Your task to perform on an android device: Show me the alarms in the clock app Image 0: 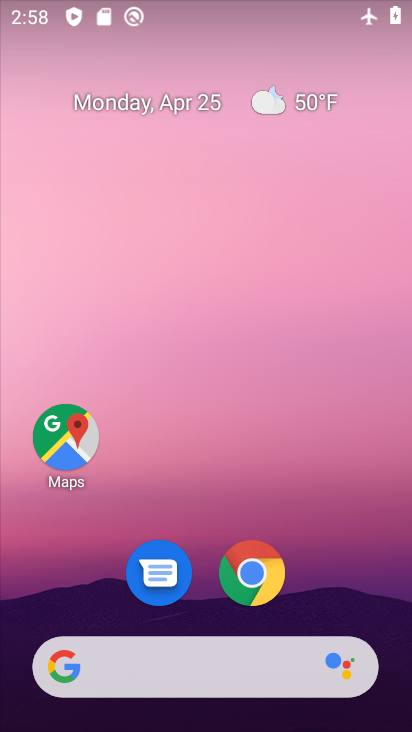
Step 0: drag from (358, 563) to (308, 122)
Your task to perform on an android device: Show me the alarms in the clock app Image 1: 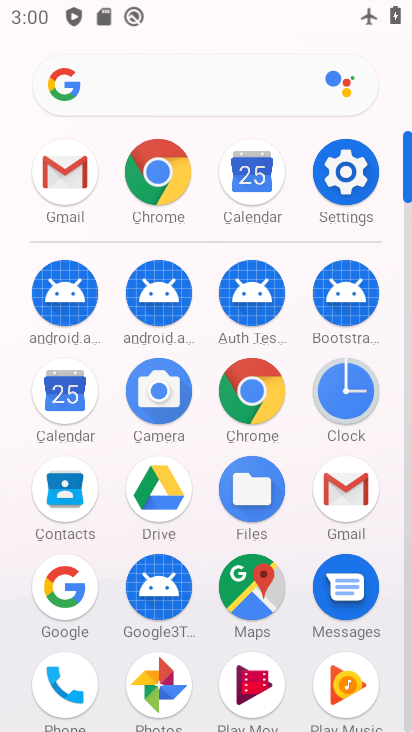
Step 1: click (343, 405)
Your task to perform on an android device: Show me the alarms in the clock app Image 2: 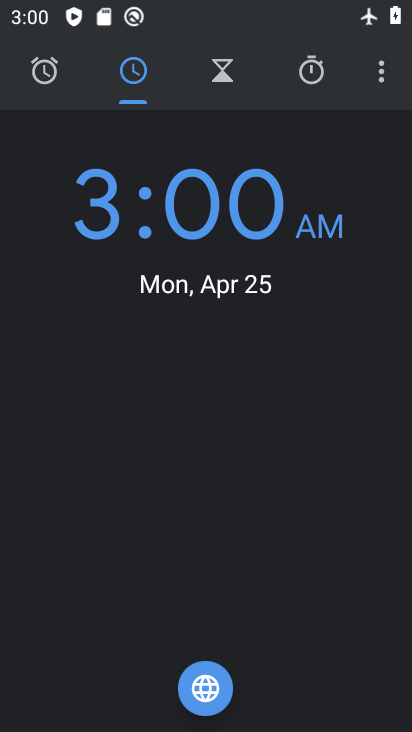
Step 2: click (377, 78)
Your task to perform on an android device: Show me the alarms in the clock app Image 3: 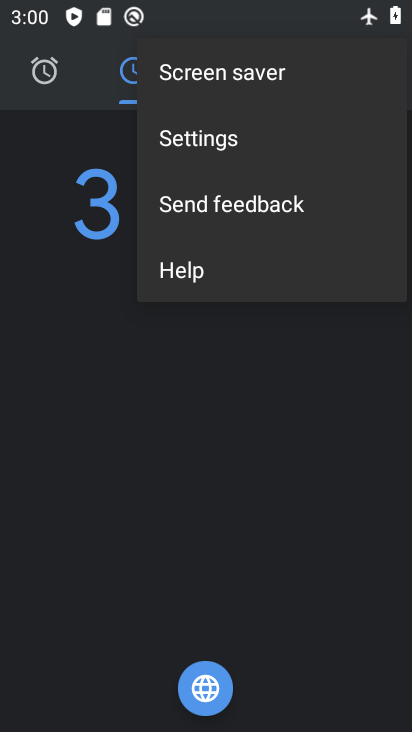
Step 3: click (222, 147)
Your task to perform on an android device: Show me the alarms in the clock app Image 4: 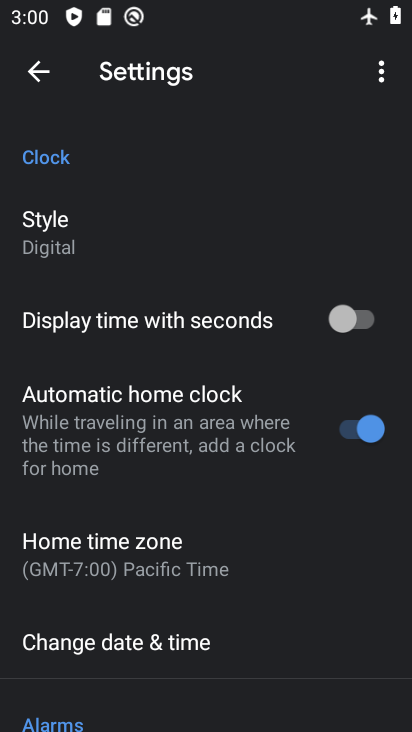
Step 4: click (246, 216)
Your task to perform on an android device: Show me the alarms in the clock app Image 5: 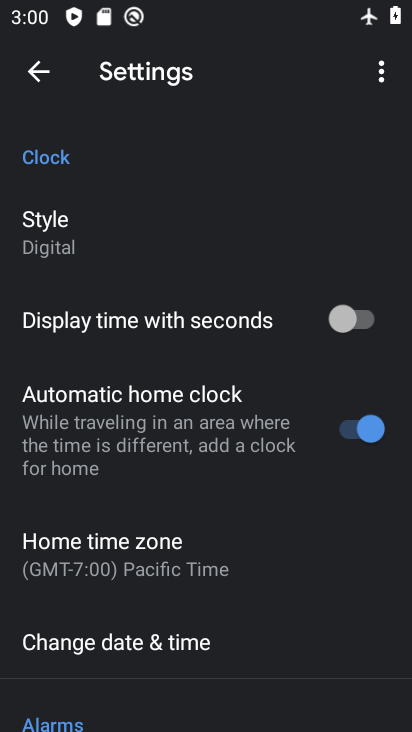
Step 5: drag from (231, 553) to (185, 154)
Your task to perform on an android device: Show me the alarms in the clock app Image 6: 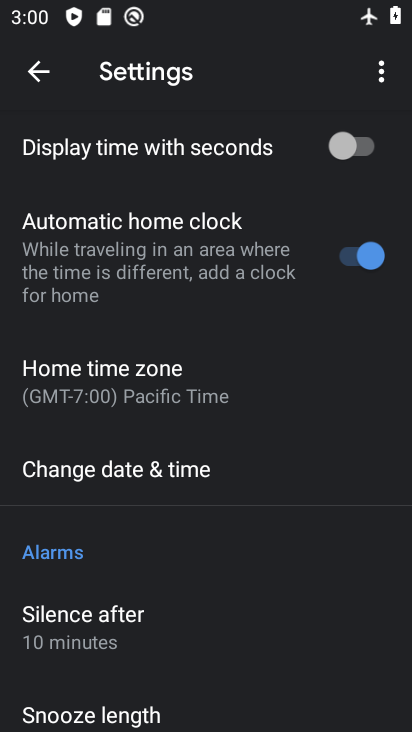
Step 6: drag from (117, 330) to (194, 588)
Your task to perform on an android device: Show me the alarms in the clock app Image 7: 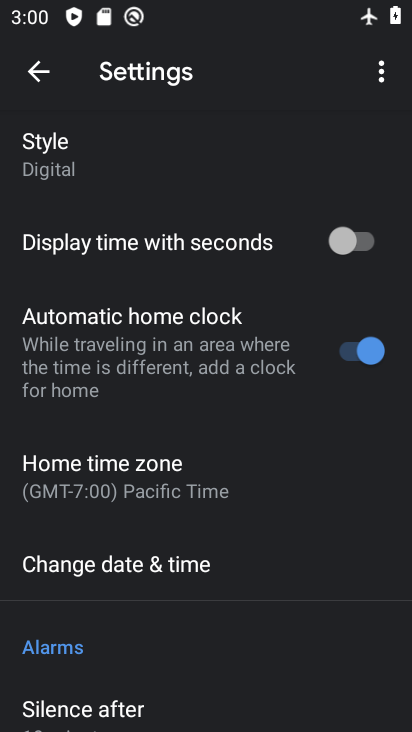
Step 7: drag from (144, 315) to (188, 707)
Your task to perform on an android device: Show me the alarms in the clock app Image 8: 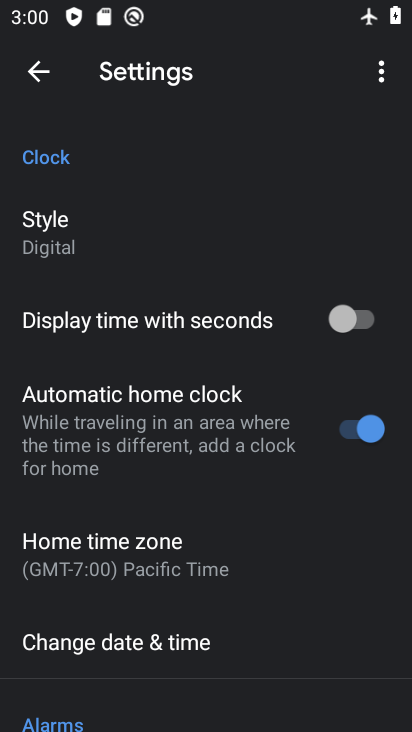
Step 8: drag from (107, 401) to (150, 665)
Your task to perform on an android device: Show me the alarms in the clock app Image 9: 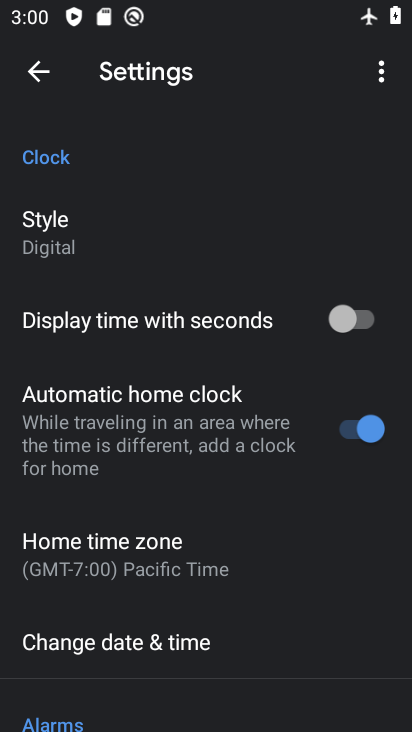
Step 9: click (66, 220)
Your task to perform on an android device: Show me the alarms in the clock app Image 10: 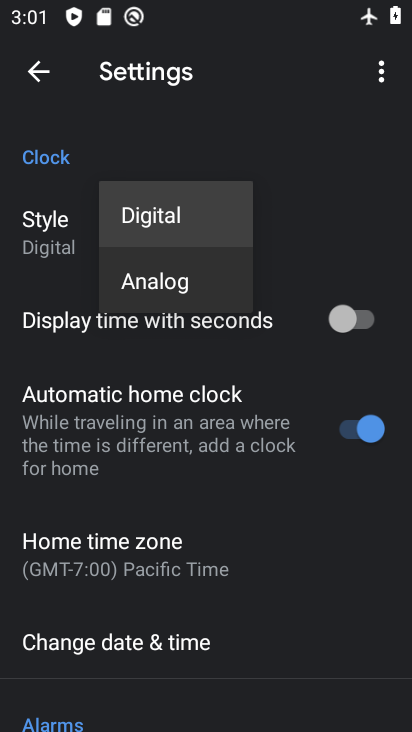
Step 10: click (126, 285)
Your task to perform on an android device: Show me the alarms in the clock app Image 11: 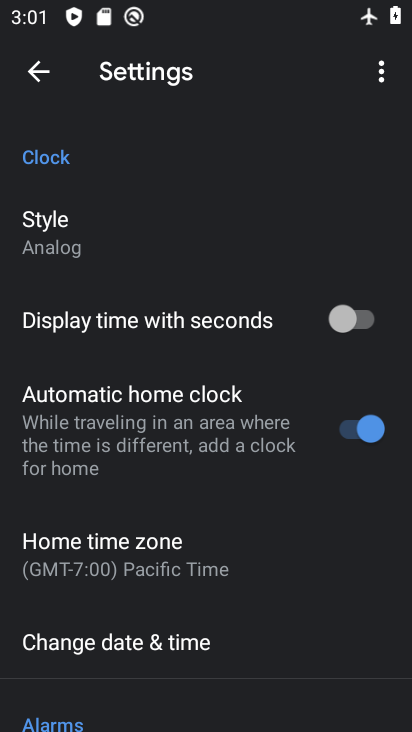
Step 11: task complete